Your task to perform on an android device: Open Youtube and go to the subscriptions tab Image 0: 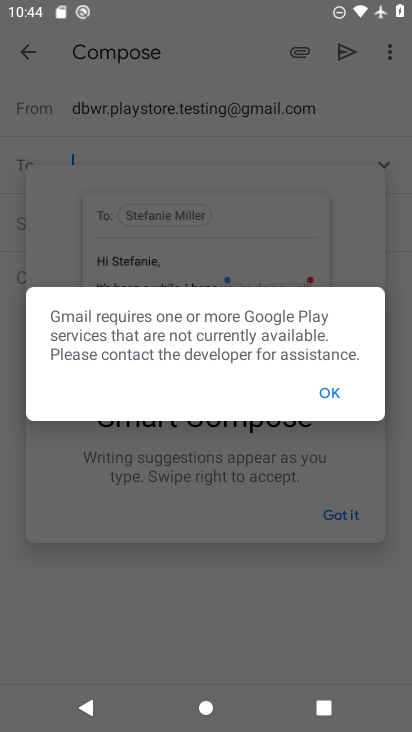
Step 0: press home button
Your task to perform on an android device: Open Youtube and go to the subscriptions tab Image 1: 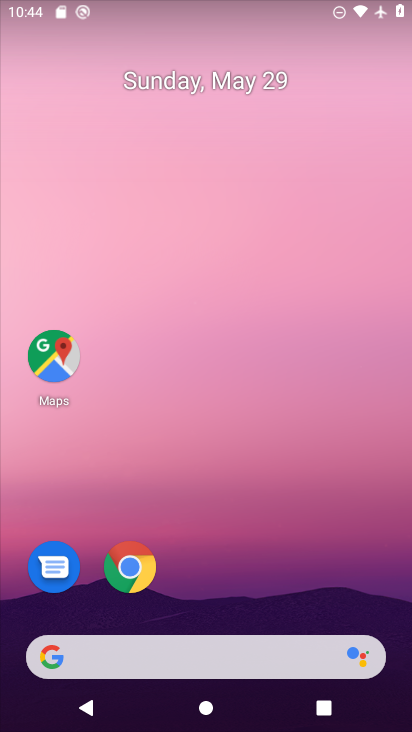
Step 1: drag from (372, 612) to (269, 55)
Your task to perform on an android device: Open Youtube and go to the subscriptions tab Image 2: 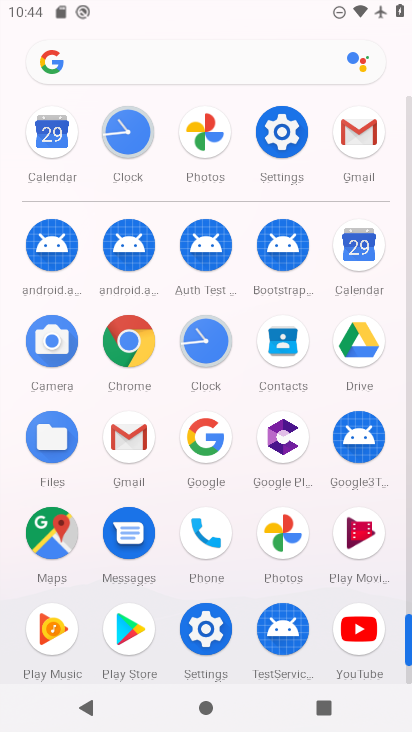
Step 2: click (360, 631)
Your task to perform on an android device: Open Youtube and go to the subscriptions tab Image 3: 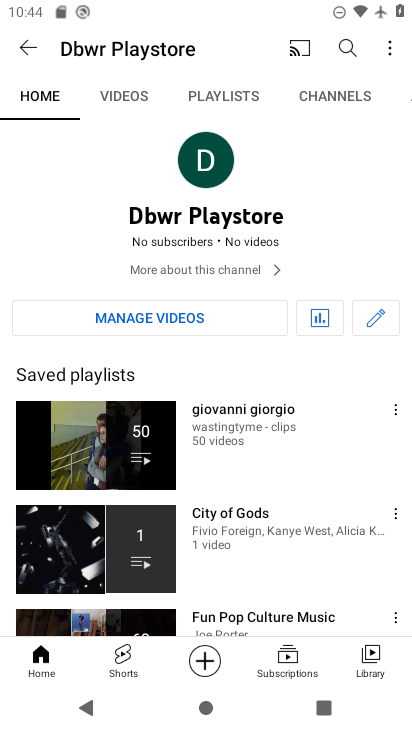
Step 3: click (287, 654)
Your task to perform on an android device: Open Youtube and go to the subscriptions tab Image 4: 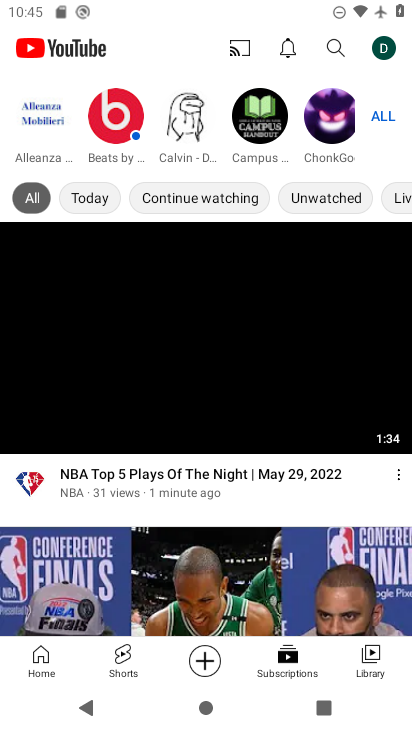
Step 4: task complete